Your task to perform on an android device: set the stopwatch Image 0: 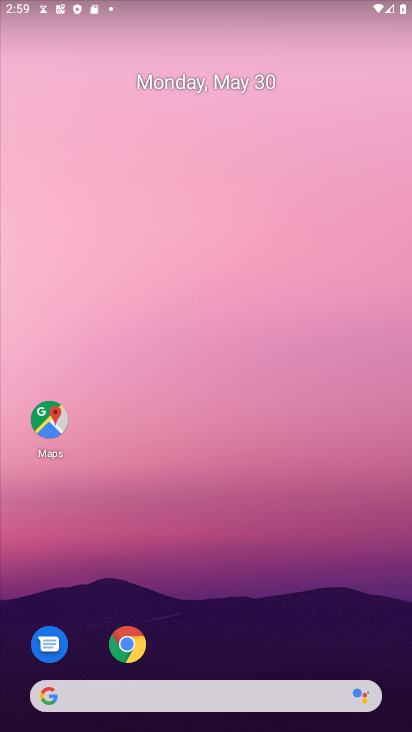
Step 0: press home button
Your task to perform on an android device: set the stopwatch Image 1: 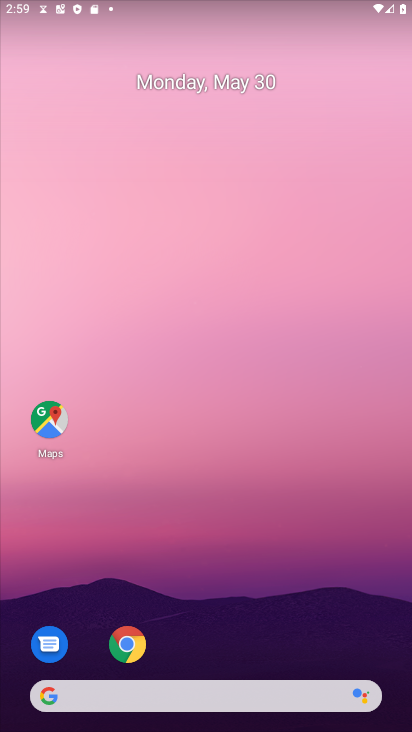
Step 1: drag from (223, 667) to (216, 5)
Your task to perform on an android device: set the stopwatch Image 2: 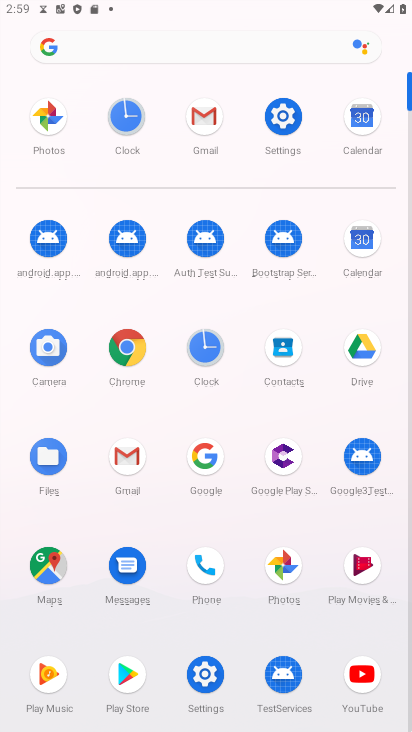
Step 2: click (122, 118)
Your task to perform on an android device: set the stopwatch Image 3: 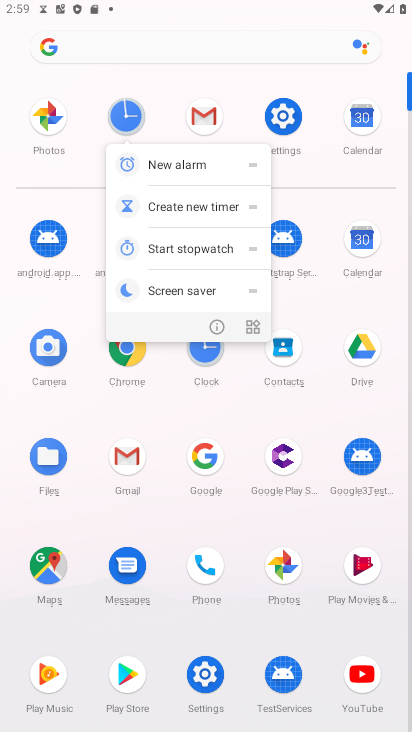
Step 3: click (121, 117)
Your task to perform on an android device: set the stopwatch Image 4: 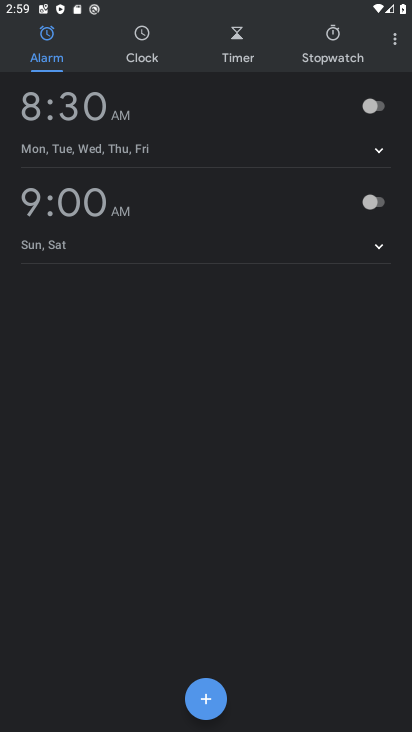
Step 4: click (336, 34)
Your task to perform on an android device: set the stopwatch Image 5: 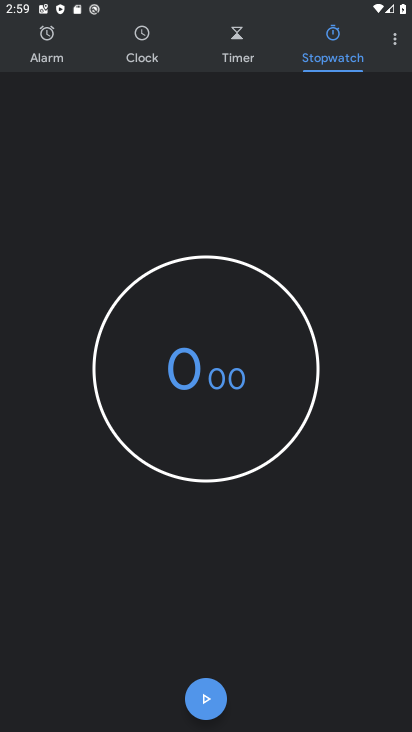
Step 5: click (179, 376)
Your task to perform on an android device: set the stopwatch Image 6: 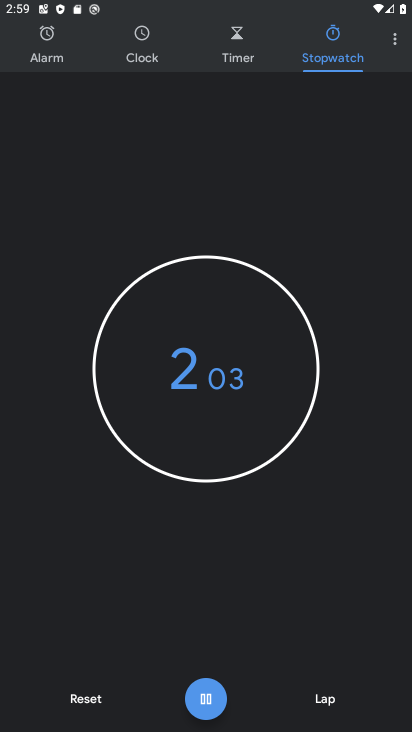
Step 6: task complete